Your task to perform on an android device: Go to network settings Image 0: 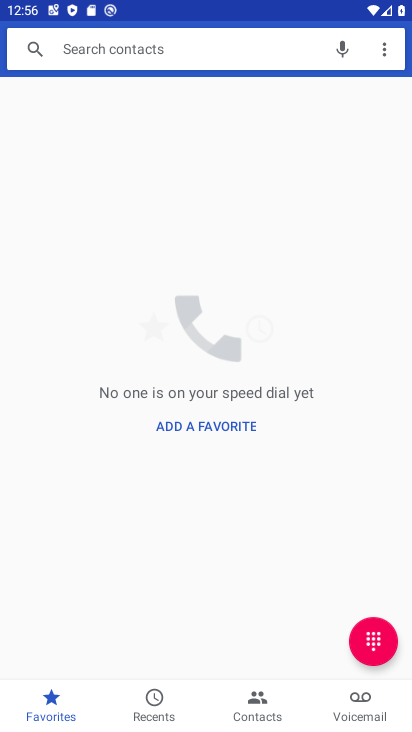
Step 0: press home button
Your task to perform on an android device: Go to network settings Image 1: 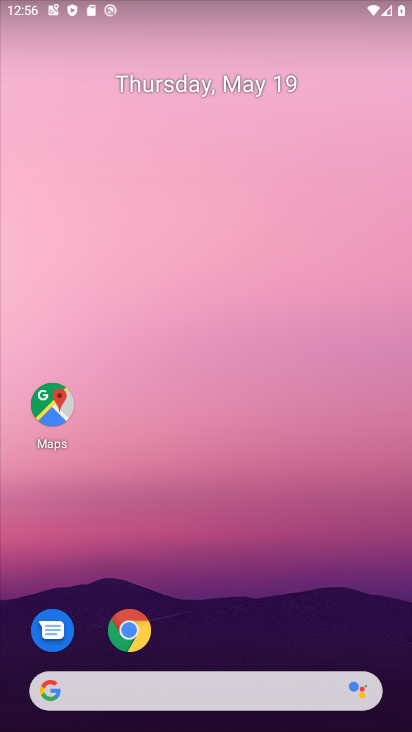
Step 1: drag from (213, 525) to (199, 18)
Your task to perform on an android device: Go to network settings Image 2: 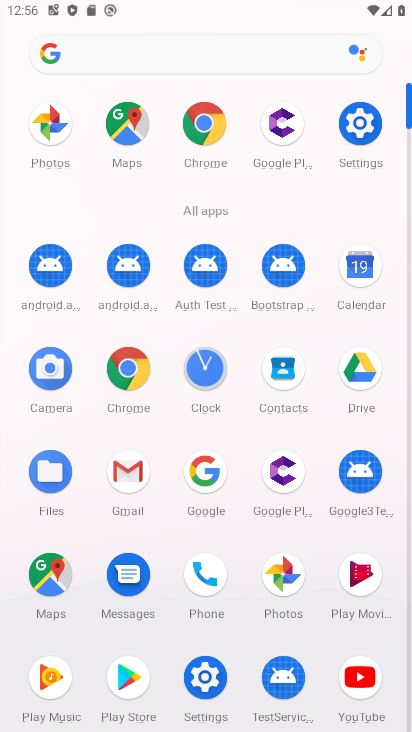
Step 2: click (345, 124)
Your task to perform on an android device: Go to network settings Image 3: 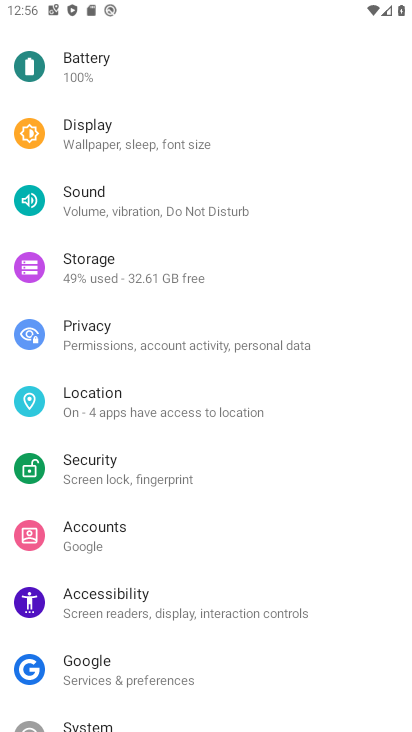
Step 3: drag from (343, 129) to (299, 729)
Your task to perform on an android device: Go to network settings Image 4: 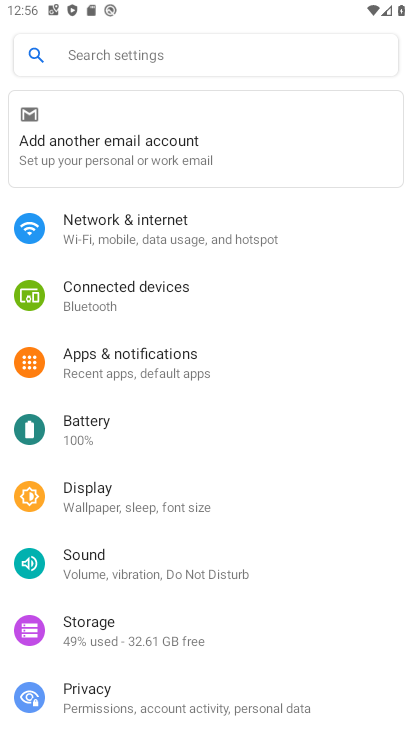
Step 4: click (172, 238)
Your task to perform on an android device: Go to network settings Image 5: 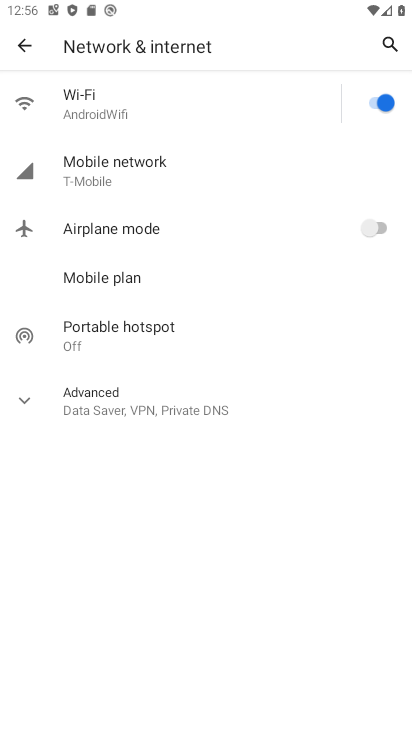
Step 5: click (128, 172)
Your task to perform on an android device: Go to network settings Image 6: 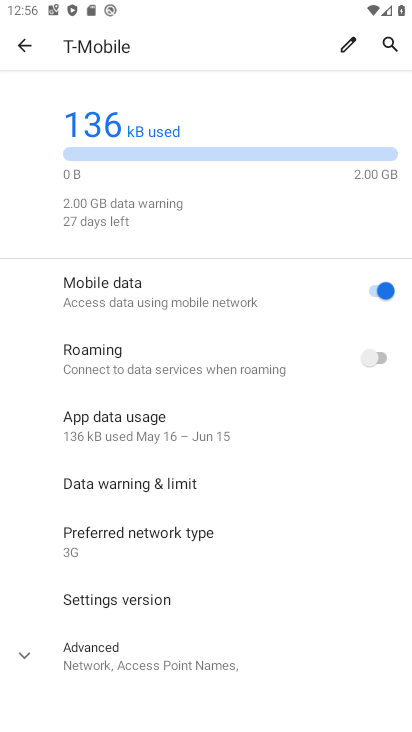
Step 6: task complete